Your task to perform on an android device: open chrome and create a bookmark for the current page Image 0: 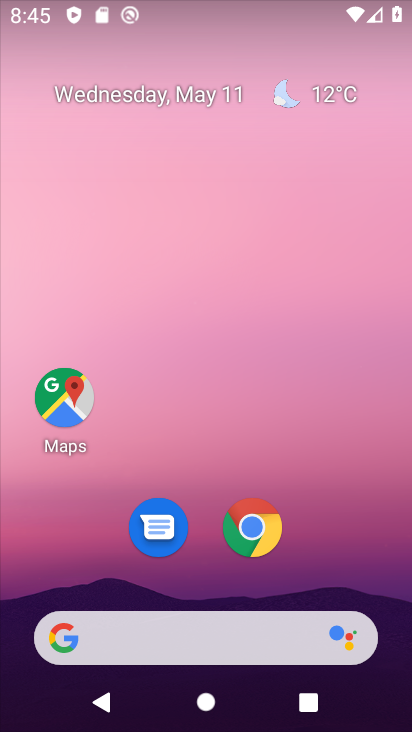
Step 0: click (256, 520)
Your task to perform on an android device: open chrome and create a bookmark for the current page Image 1: 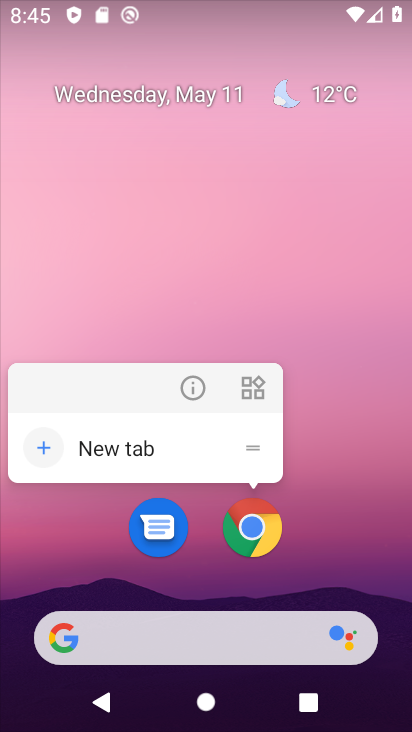
Step 1: click (257, 525)
Your task to perform on an android device: open chrome and create a bookmark for the current page Image 2: 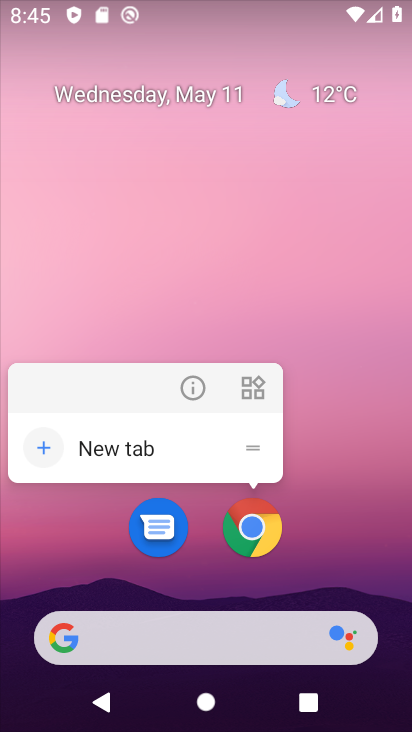
Step 2: click (252, 526)
Your task to perform on an android device: open chrome and create a bookmark for the current page Image 3: 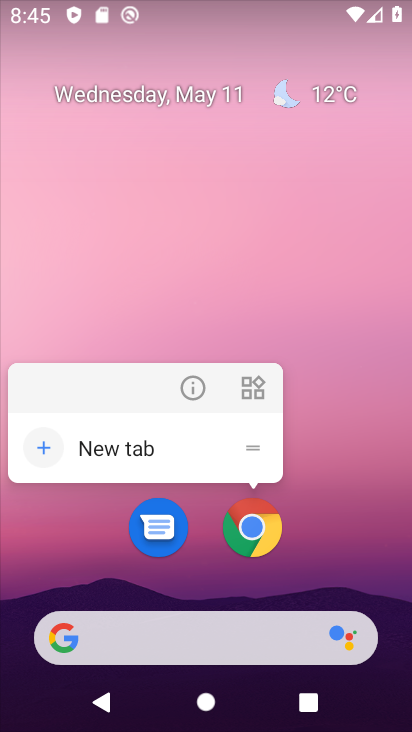
Step 3: click (304, 533)
Your task to perform on an android device: open chrome and create a bookmark for the current page Image 4: 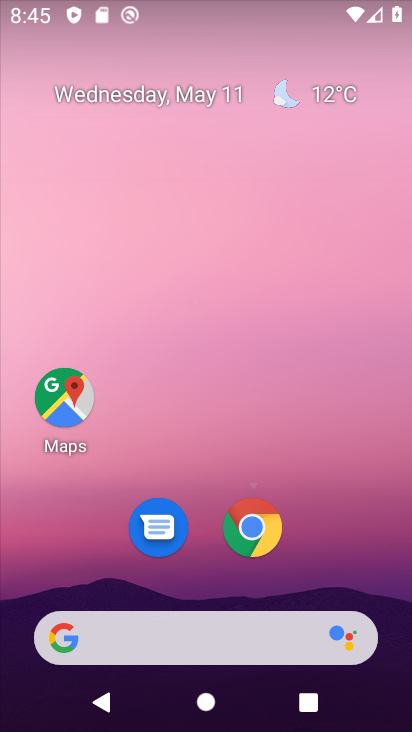
Step 4: drag from (329, 575) to (375, 73)
Your task to perform on an android device: open chrome and create a bookmark for the current page Image 5: 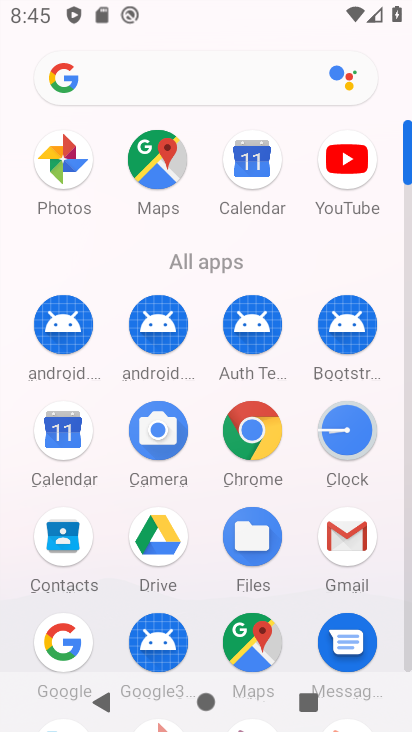
Step 5: click (257, 433)
Your task to perform on an android device: open chrome and create a bookmark for the current page Image 6: 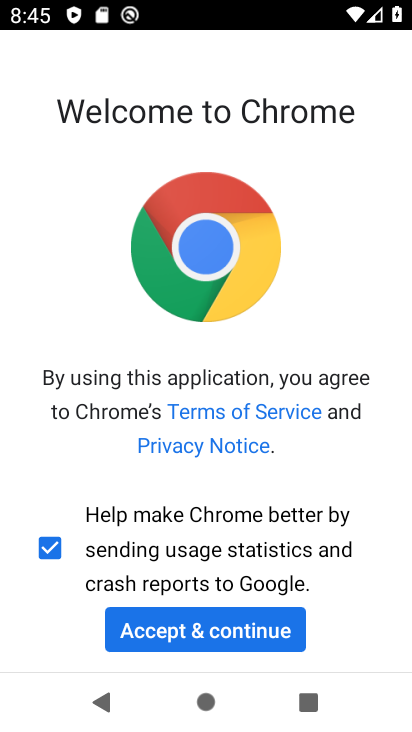
Step 6: click (259, 634)
Your task to perform on an android device: open chrome and create a bookmark for the current page Image 7: 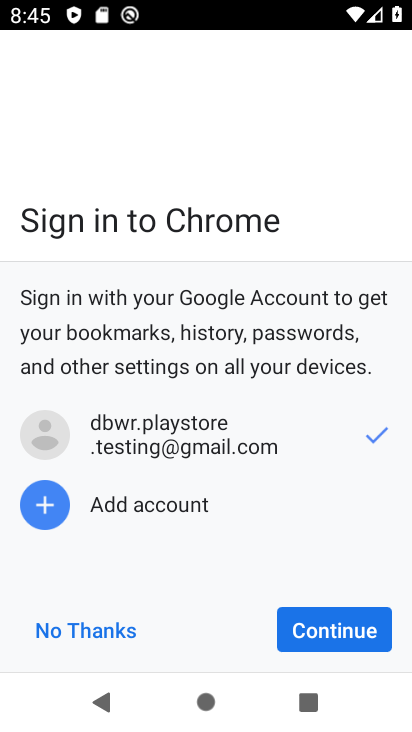
Step 7: click (336, 643)
Your task to perform on an android device: open chrome and create a bookmark for the current page Image 8: 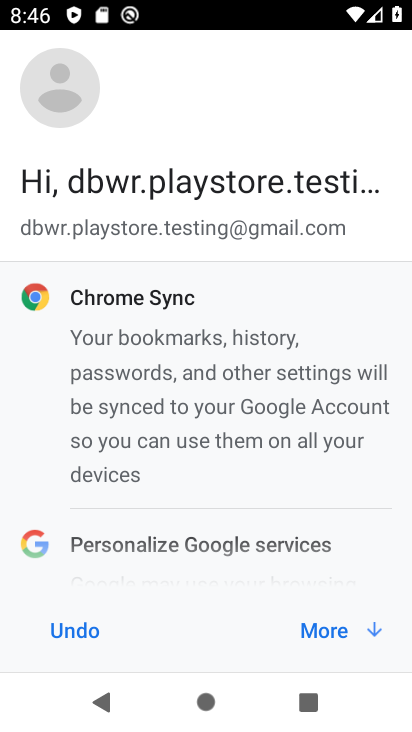
Step 8: click (326, 634)
Your task to perform on an android device: open chrome and create a bookmark for the current page Image 9: 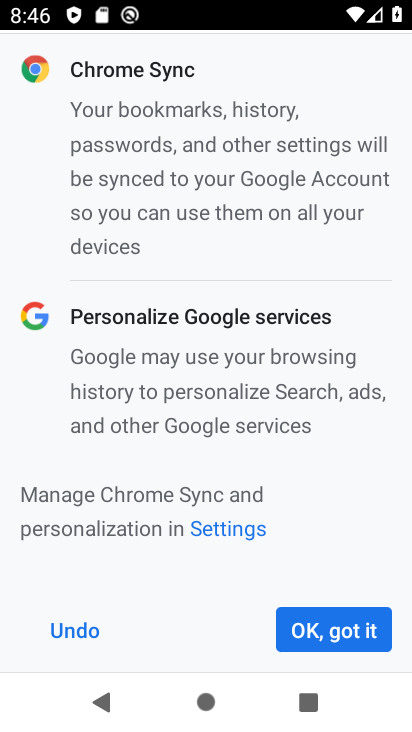
Step 9: click (327, 635)
Your task to perform on an android device: open chrome and create a bookmark for the current page Image 10: 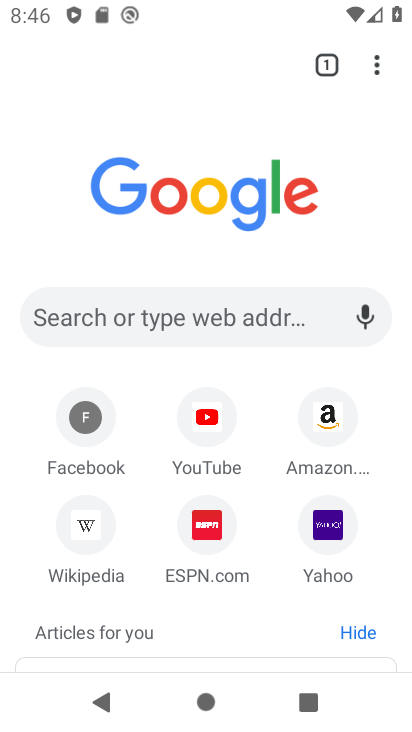
Step 10: task complete